Your task to perform on an android device: set an alarm Image 0: 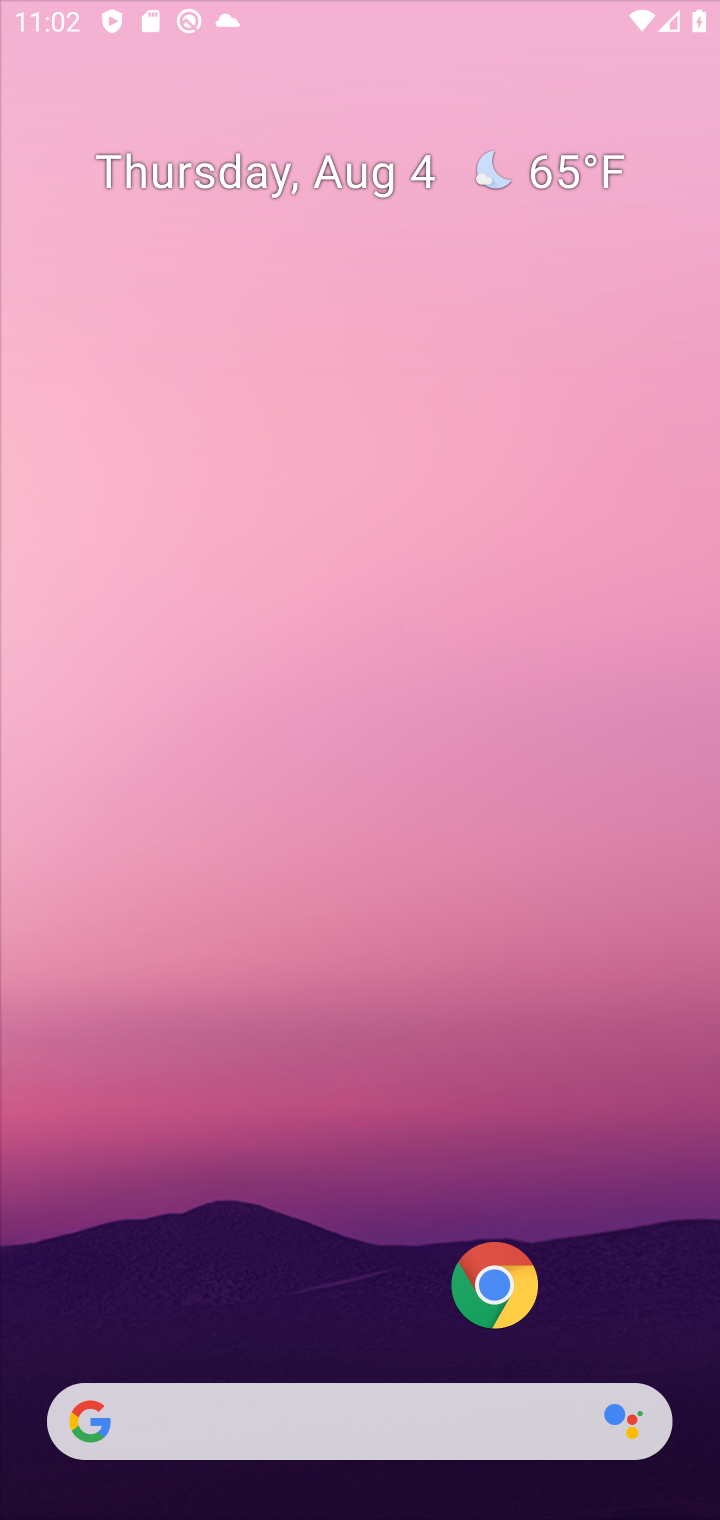
Step 0: press home button
Your task to perform on an android device: set an alarm Image 1: 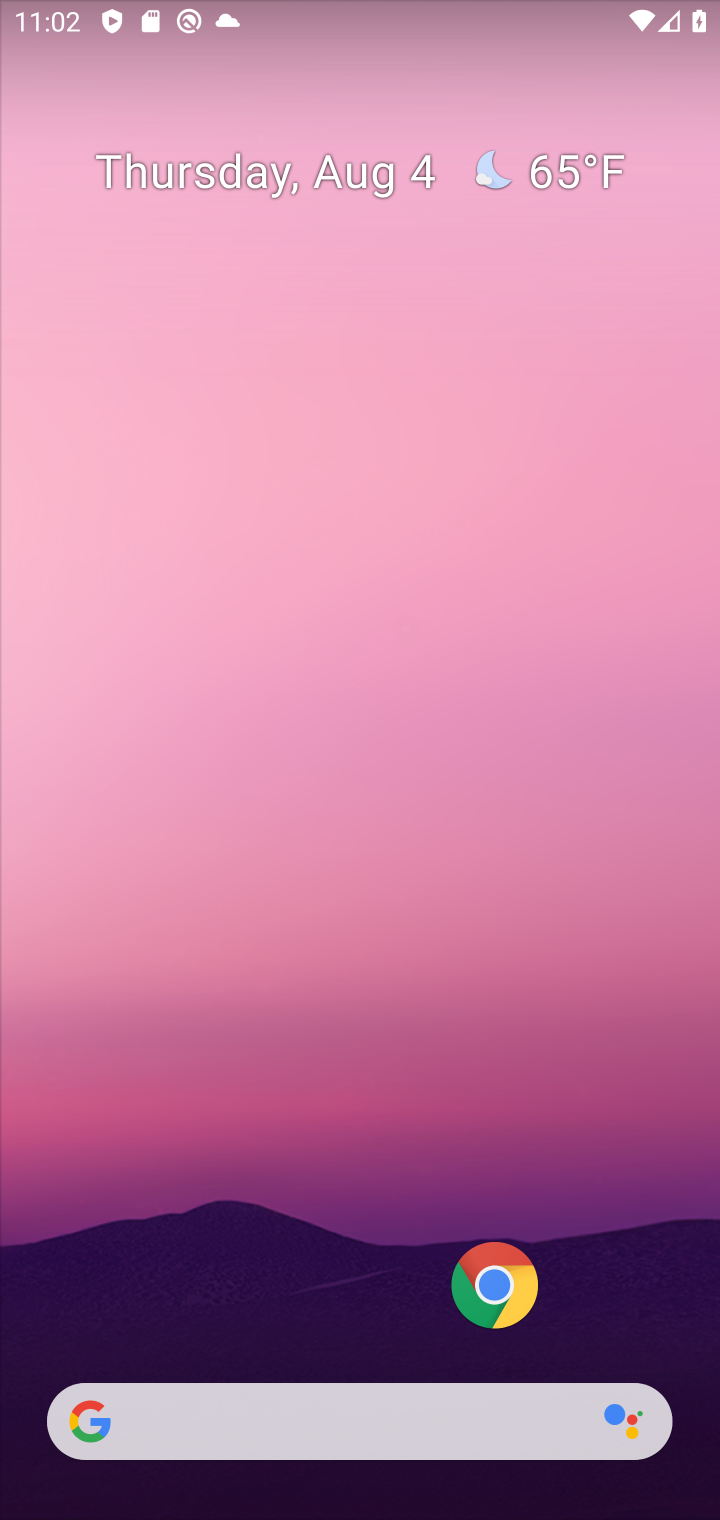
Step 1: drag from (260, 1252) to (303, 297)
Your task to perform on an android device: set an alarm Image 2: 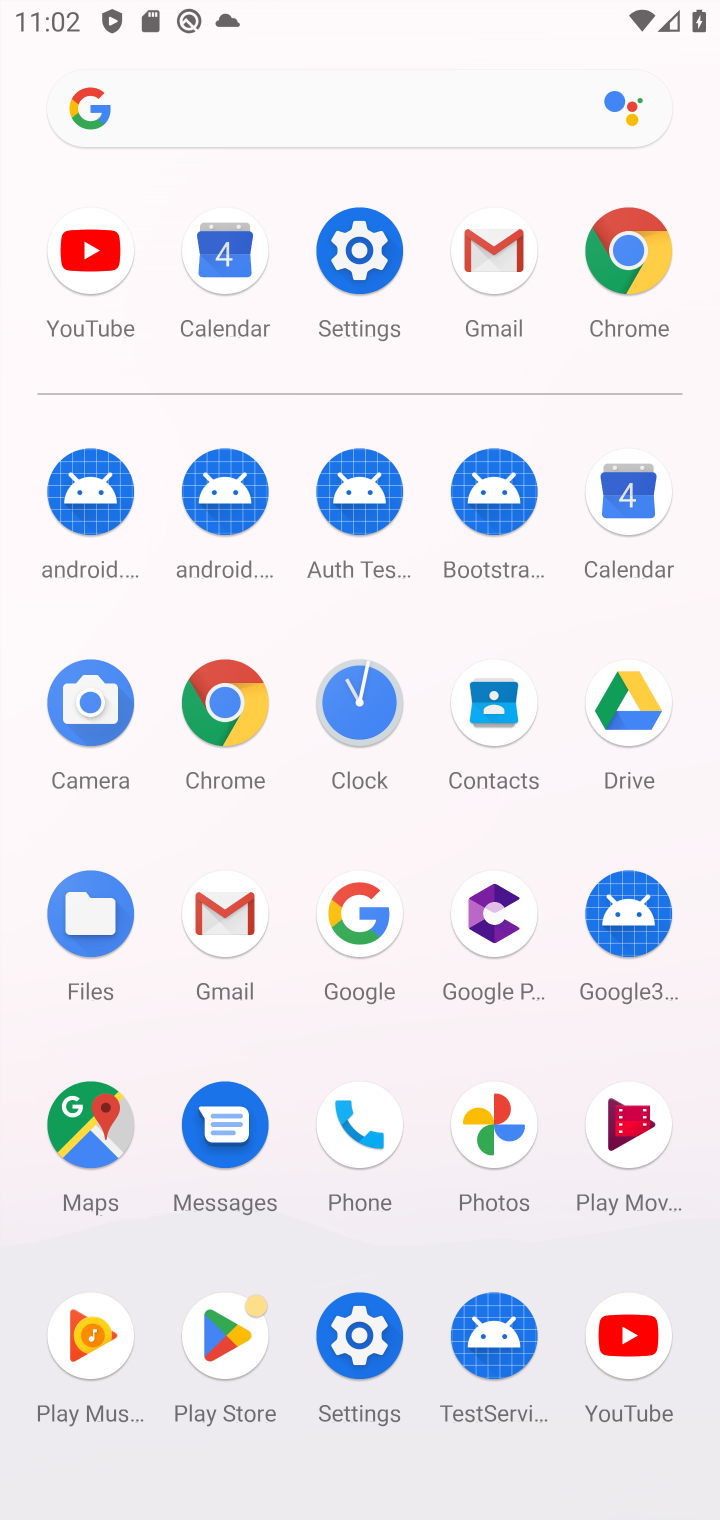
Step 2: click (434, 919)
Your task to perform on an android device: set an alarm Image 3: 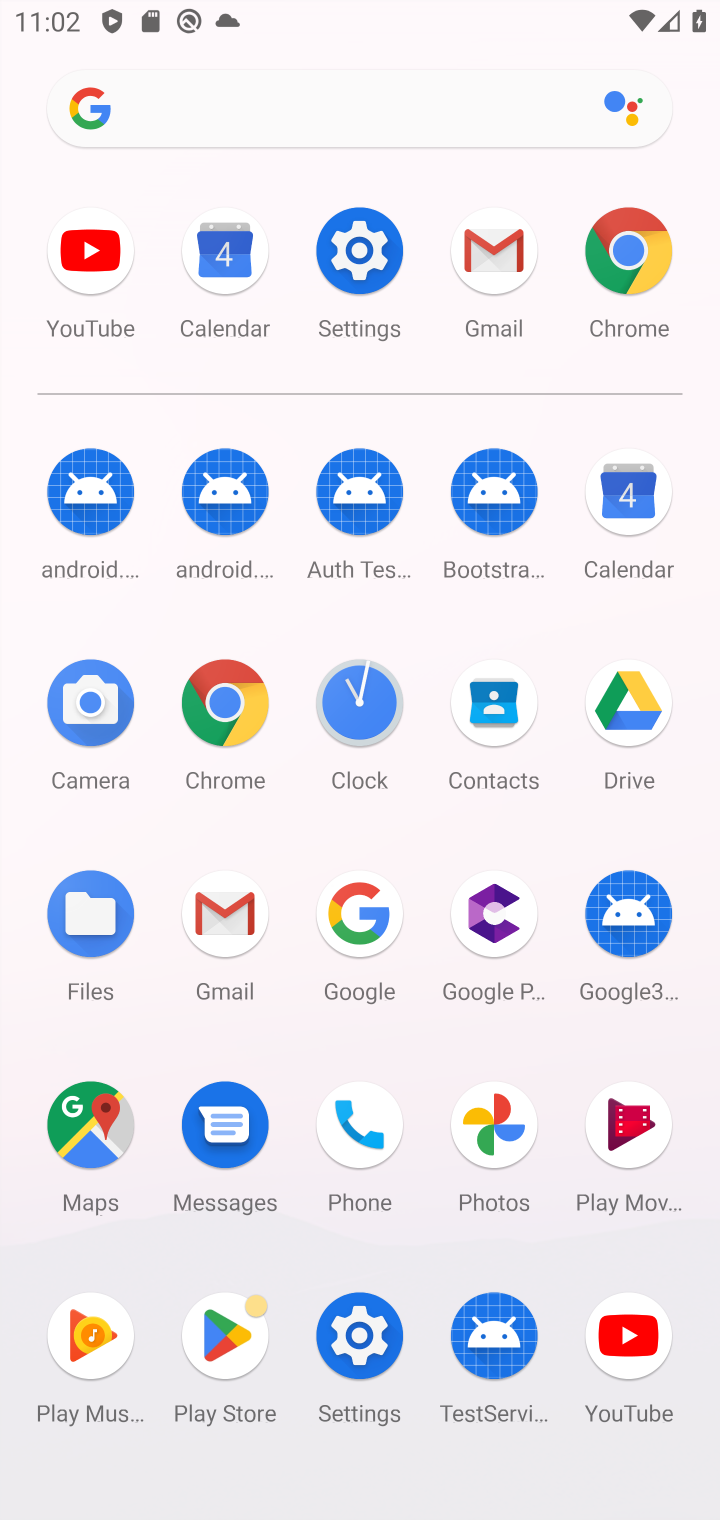
Step 3: click (359, 711)
Your task to perform on an android device: set an alarm Image 4: 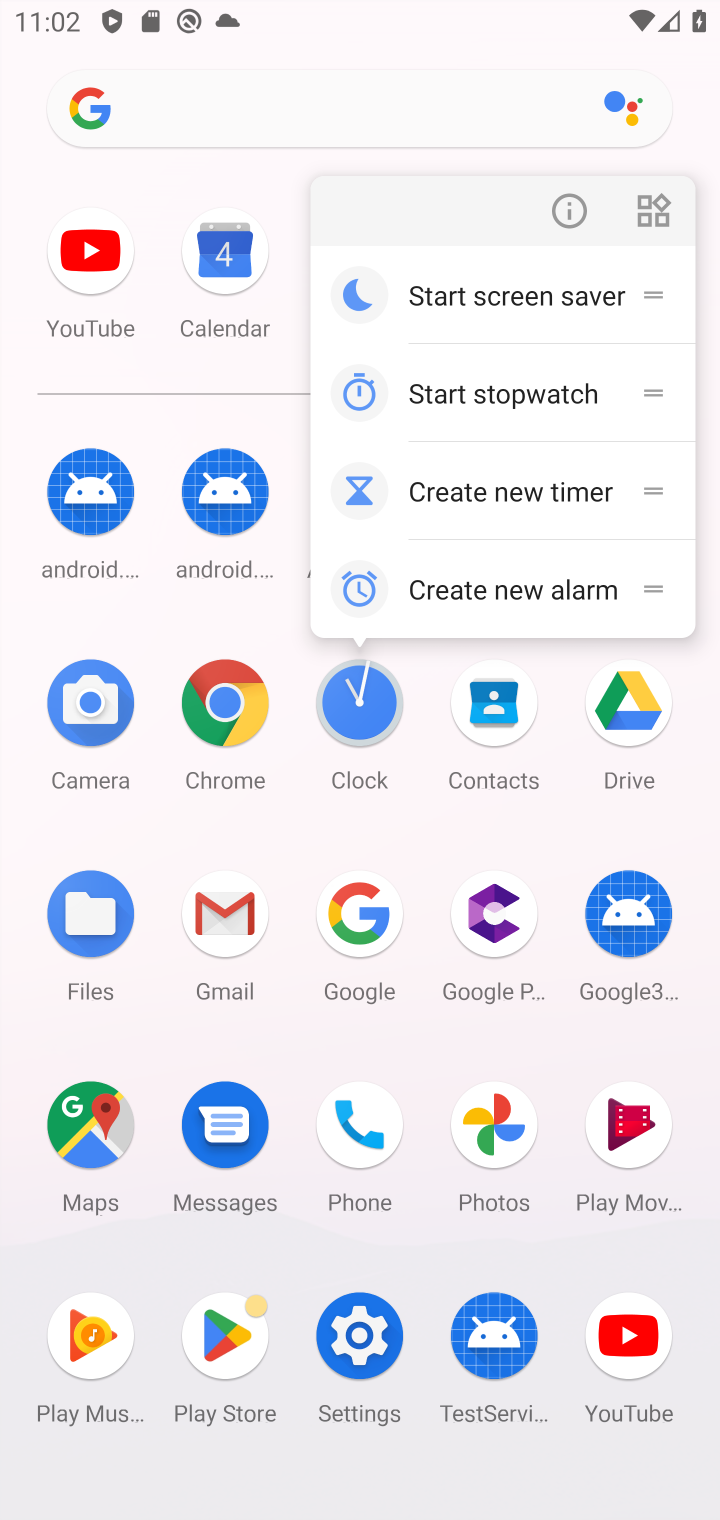
Step 4: click (170, 395)
Your task to perform on an android device: set an alarm Image 5: 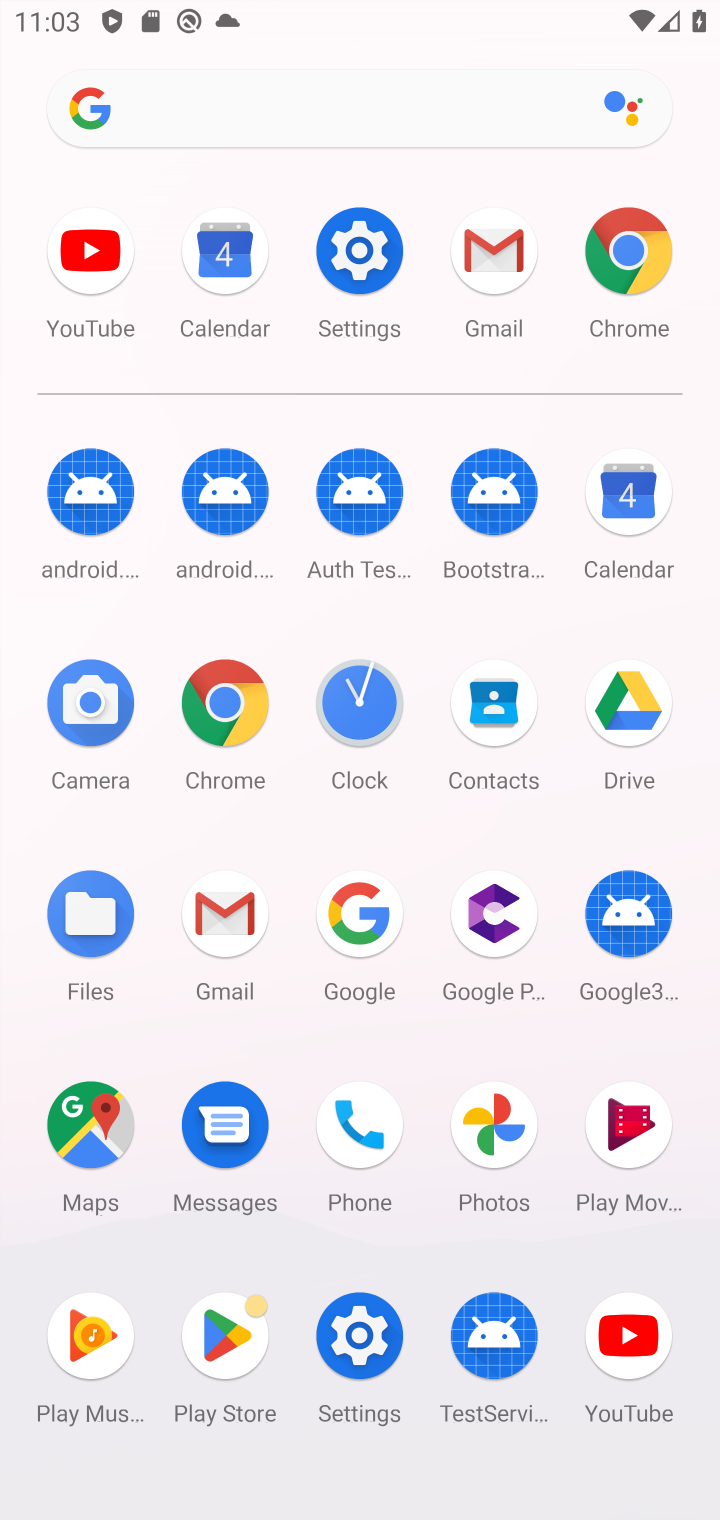
Step 5: click (376, 691)
Your task to perform on an android device: set an alarm Image 6: 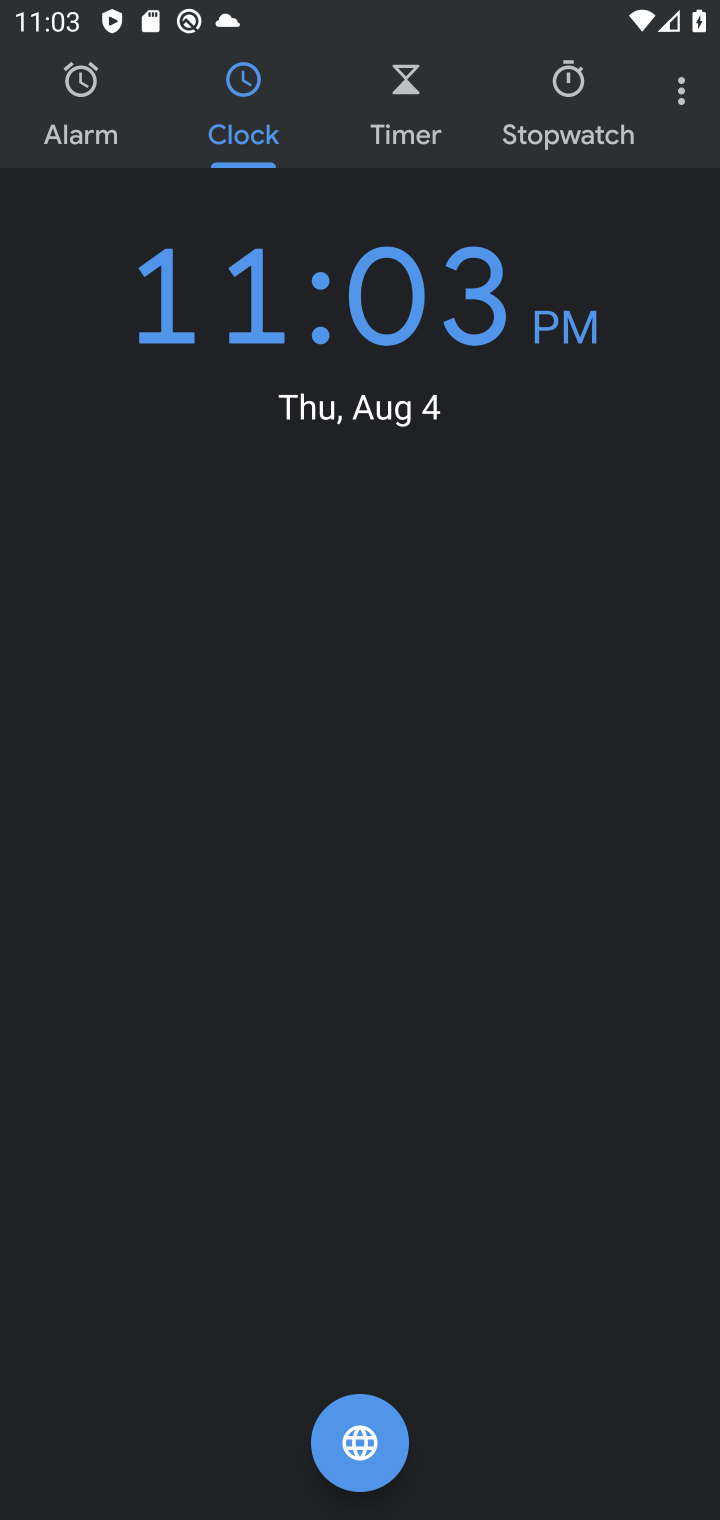
Step 6: click (60, 135)
Your task to perform on an android device: set an alarm Image 7: 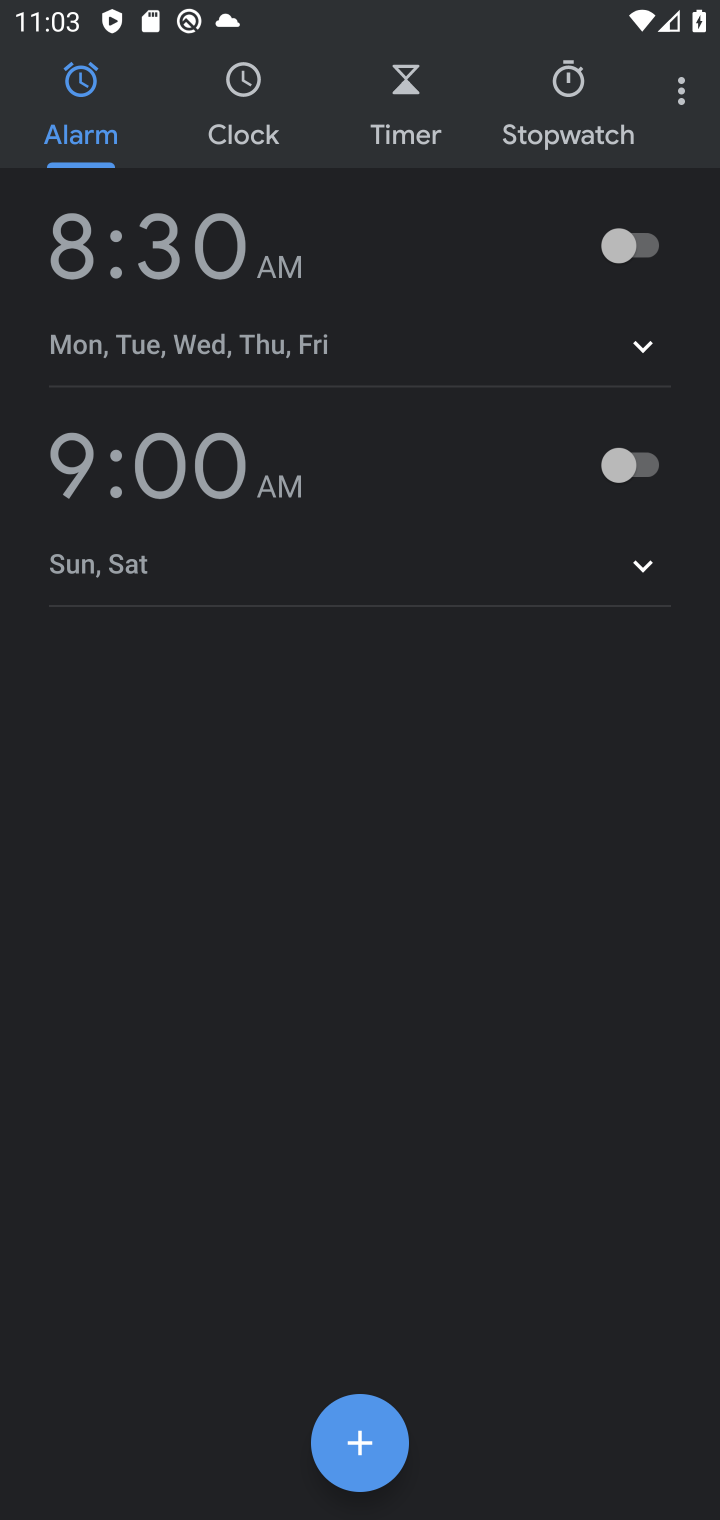
Step 7: click (361, 1445)
Your task to perform on an android device: set an alarm Image 8: 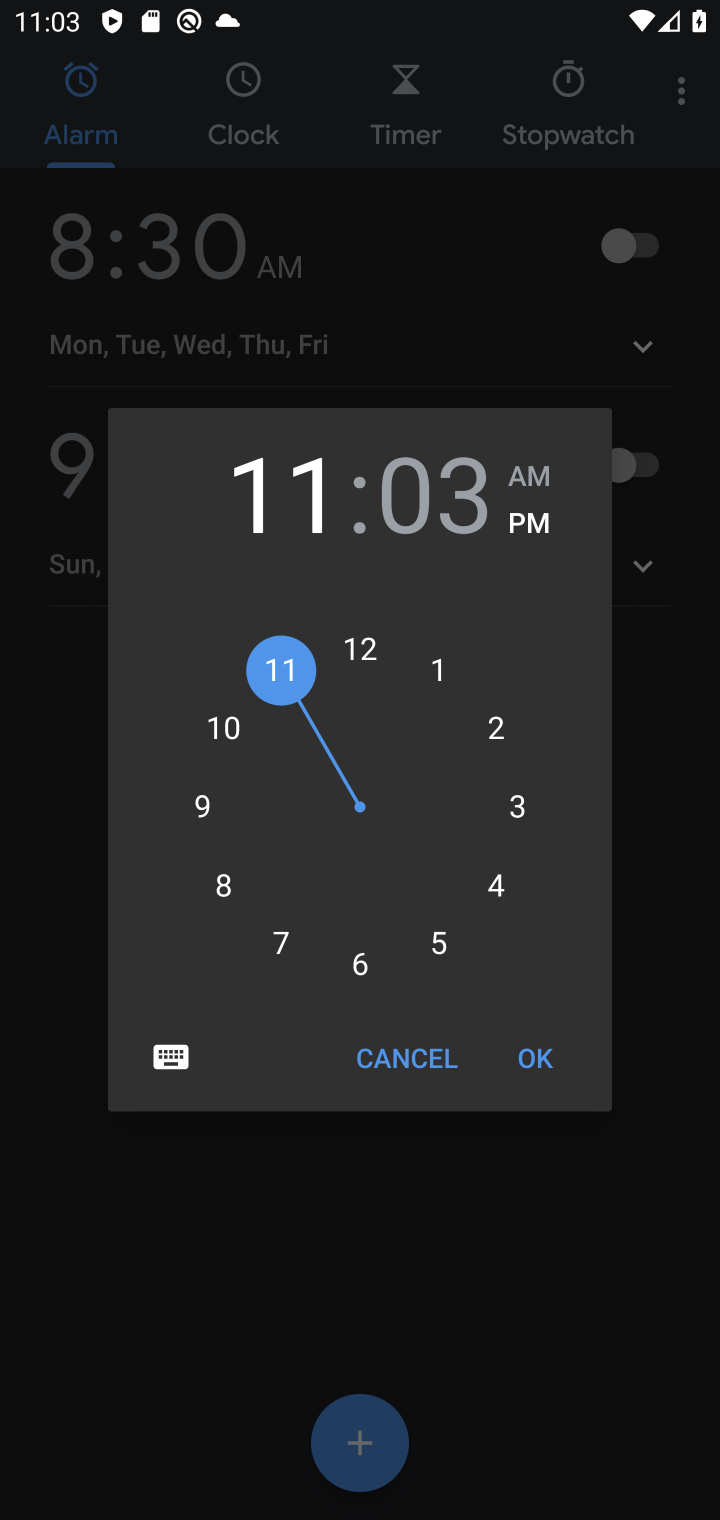
Step 8: click (522, 1082)
Your task to perform on an android device: set an alarm Image 9: 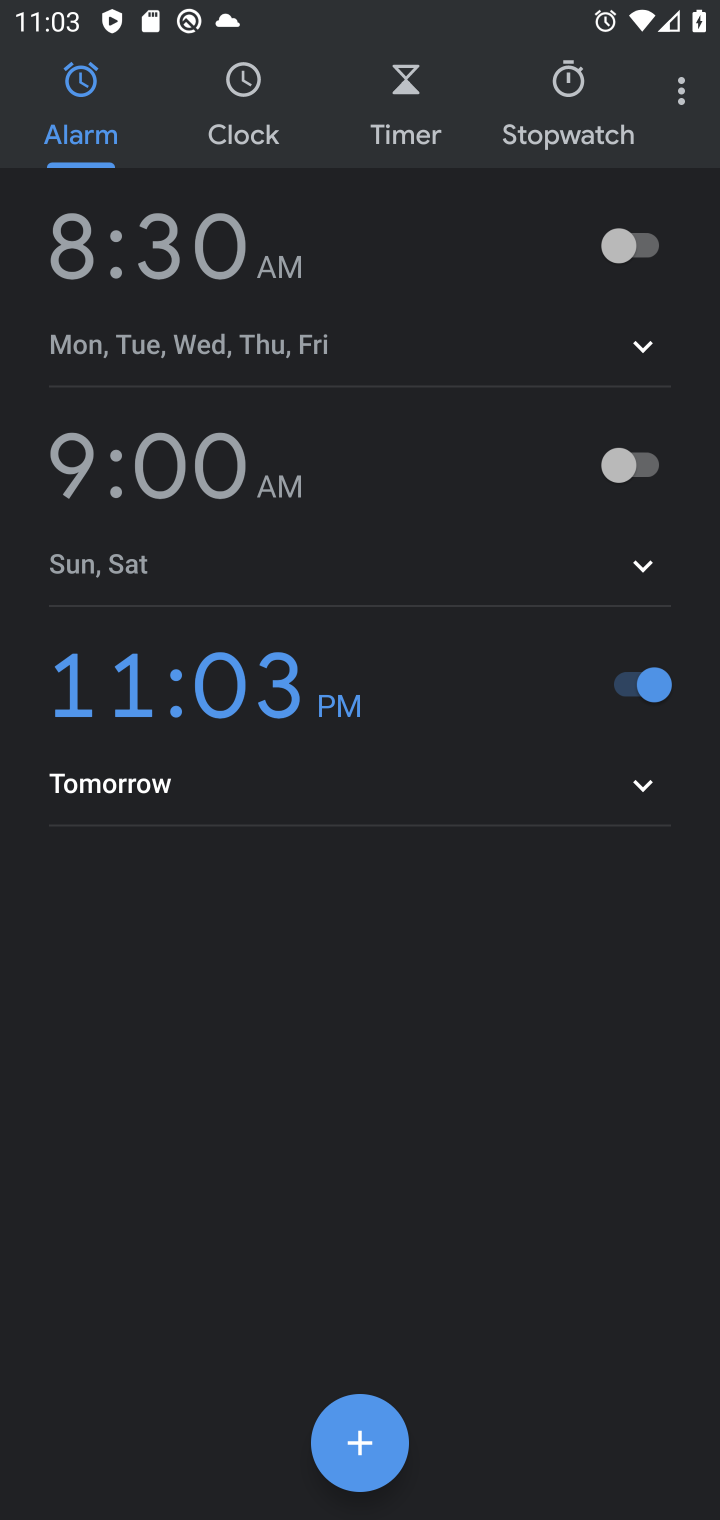
Step 9: click (342, 1440)
Your task to perform on an android device: set an alarm Image 10: 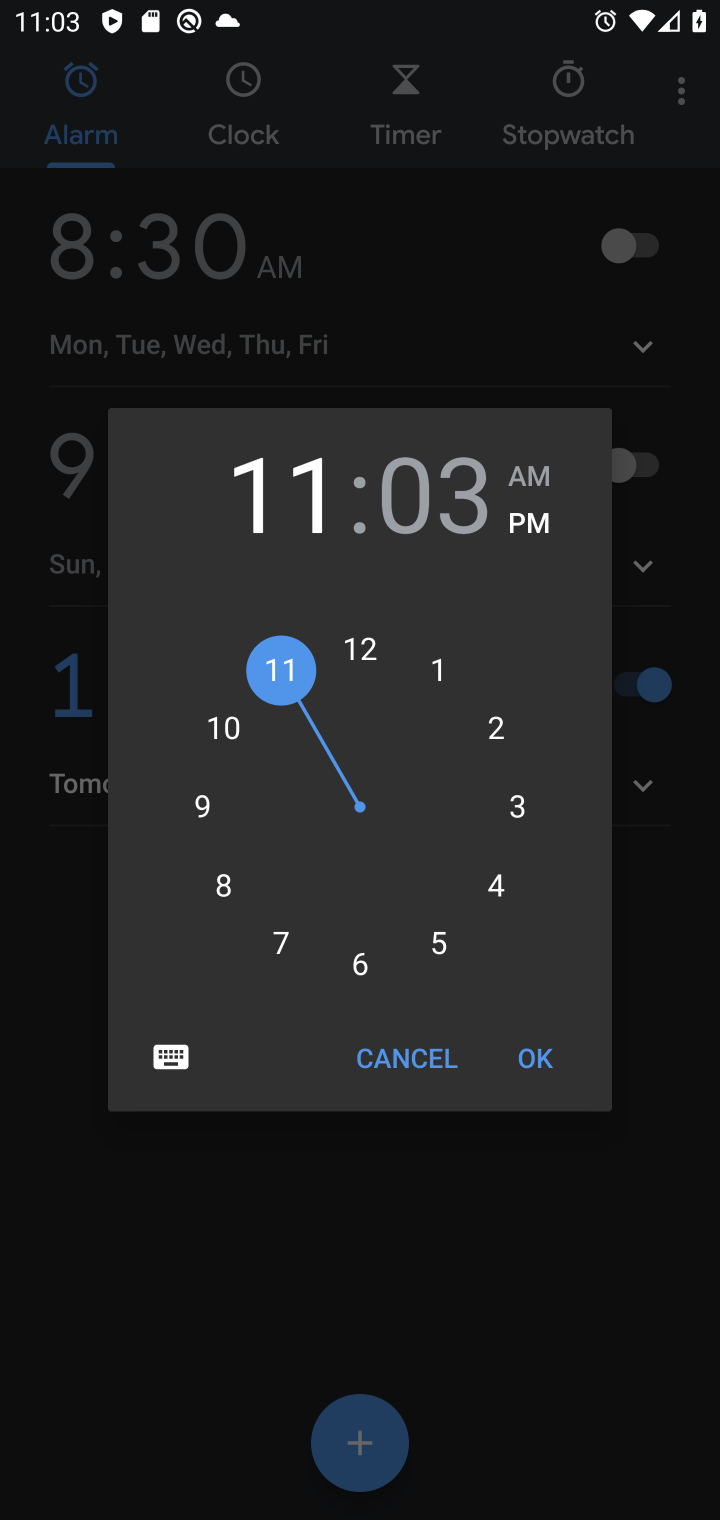
Step 10: click (540, 1075)
Your task to perform on an android device: set an alarm Image 11: 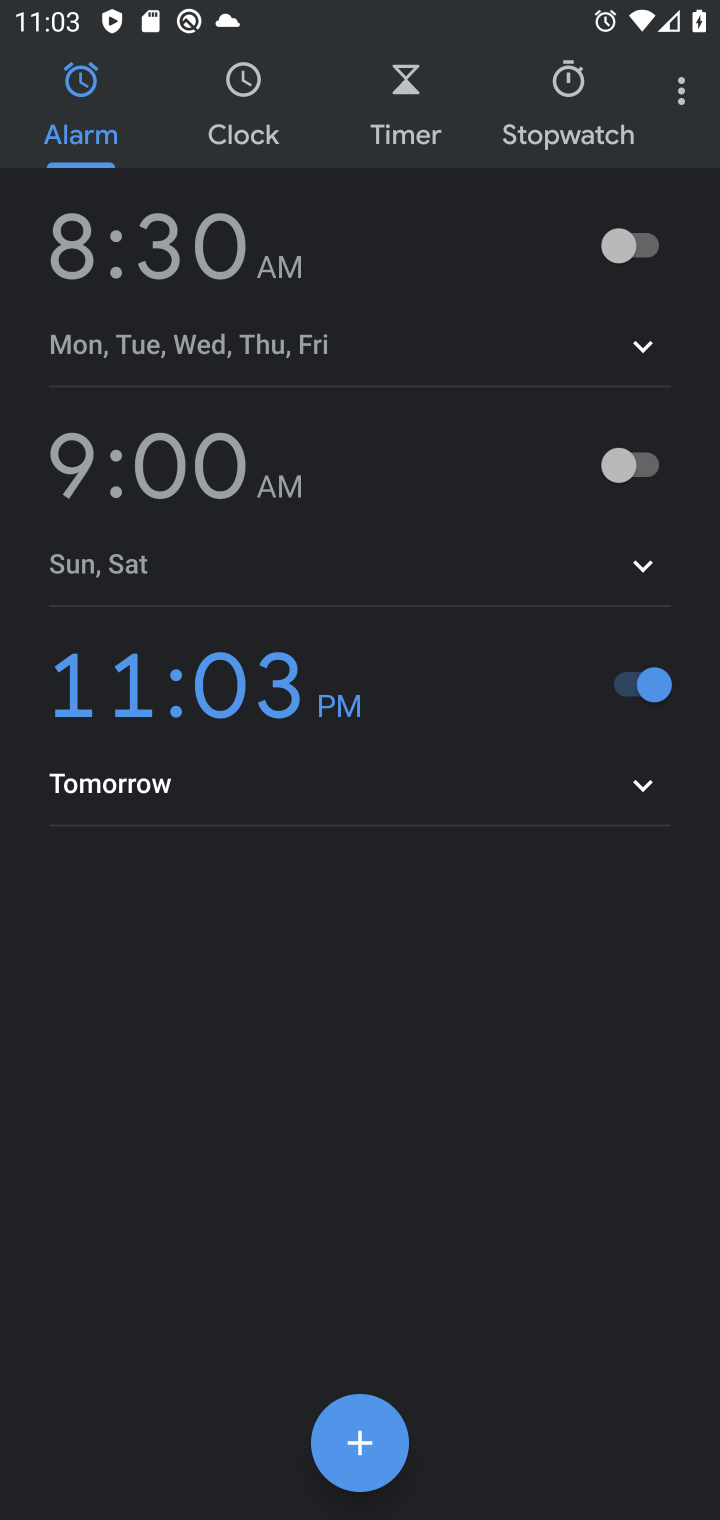
Step 11: task complete